Your task to perform on an android device: View the shopping cart on ebay.com. Search for asus zenbook on ebay.com, select the first entry, and add it to the cart. Image 0: 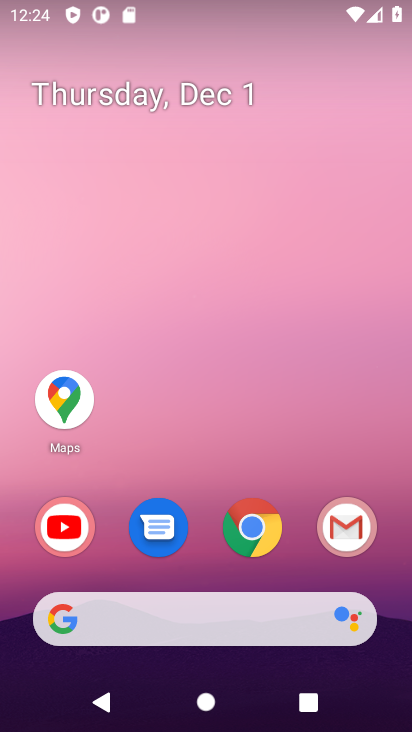
Step 0: click (250, 533)
Your task to perform on an android device: View the shopping cart on ebay.com. Search for asus zenbook on ebay.com, select the first entry, and add it to the cart. Image 1: 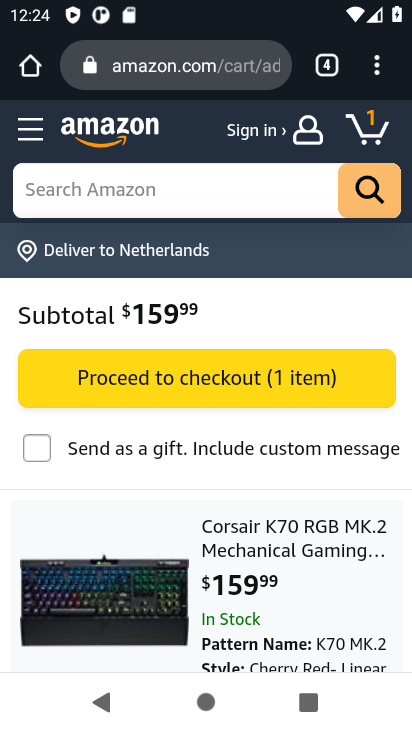
Step 1: click (143, 57)
Your task to perform on an android device: View the shopping cart on ebay.com. Search for asus zenbook on ebay.com, select the first entry, and add it to the cart. Image 2: 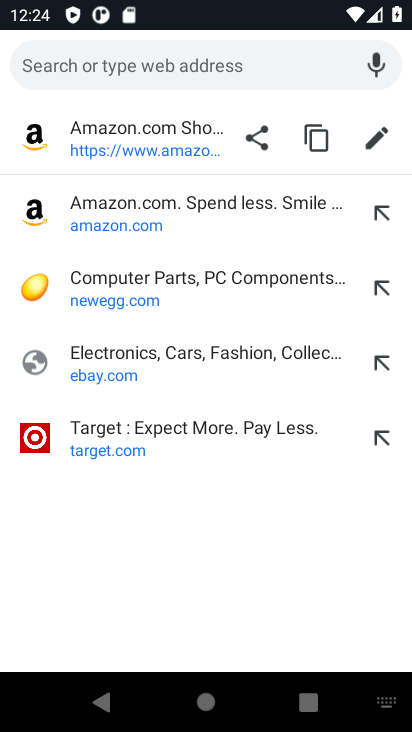
Step 2: click (80, 361)
Your task to perform on an android device: View the shopping cart on ebay.com. Search for asus zenbook on ebay.com, select the first entry, and add it to the cart. Image 3: 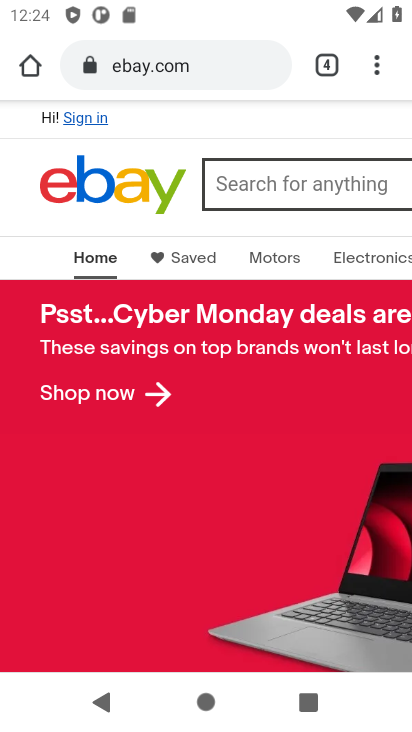
Step 3: drag from (330, 224) to (0, 192)
Your task to perform on an android device: View the shopping cart on ebay.com. Search for asus zenbook on ebay.com, select the first entry, and add it to the cart. Image 4: 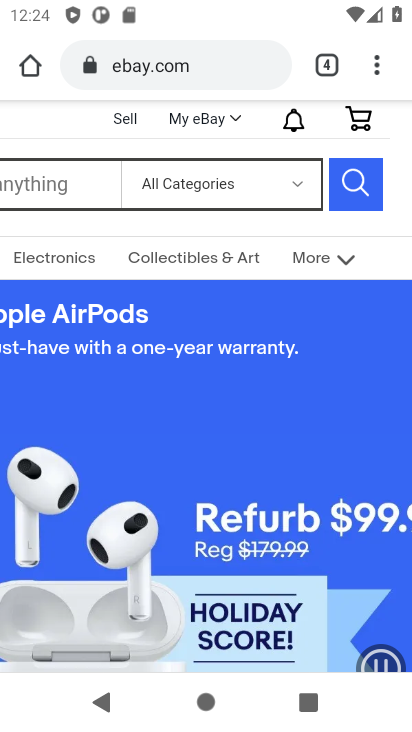
Step 4: click (369, 117)
Your task to perform on an android device: View the shopping cart on ebay.com. Search for asus zenbook on ebay.com, select the first entry, and add it to the cart. Image 5: 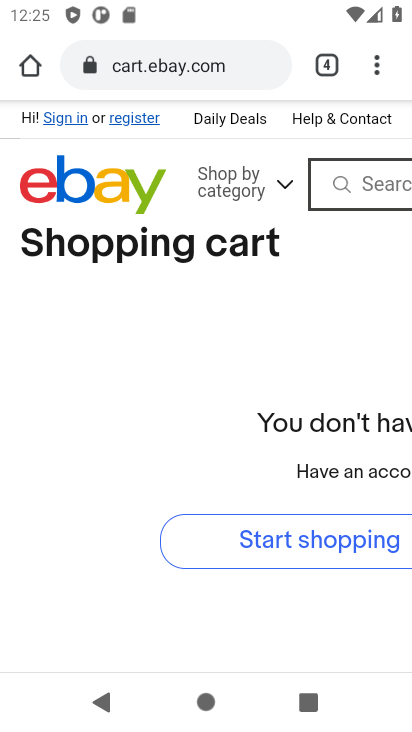
Step 5: click (391, 196)
Your task to perform on an android device: View the shopping cart on ebay.com. Search for asus zenbook on ebay.com, select the first entry, and add it to the cart. Image 6: 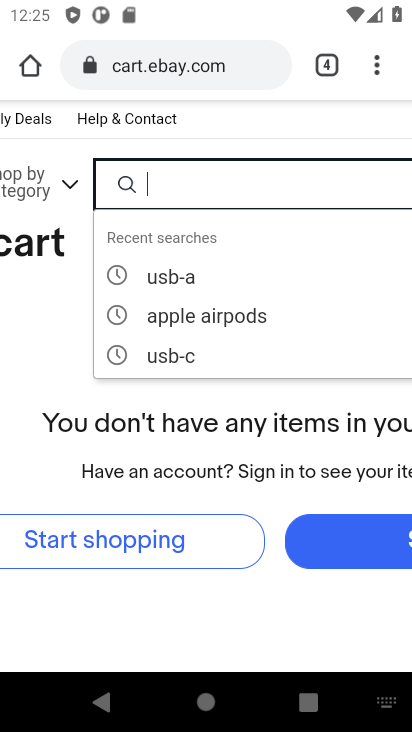
Step 6: type "asus zenbook "
Your task to perform on an android device: View the shopping cart on ebay.com. Search for asus zenbook on ebay.com, select the first entry, and add it to the cart. Image 7: 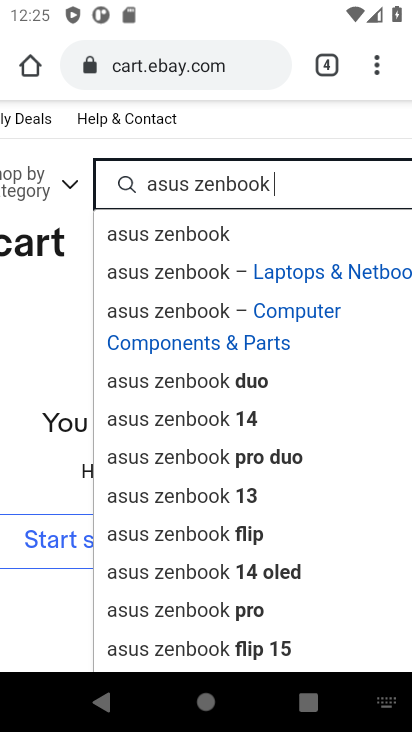
Step 7: click (170, 234)
Your task to perform on an android device: View the shopping cart on ebay.com. Search for asus zenbook on ebay.com, select the first entry, and add it to the cart. Image 8: 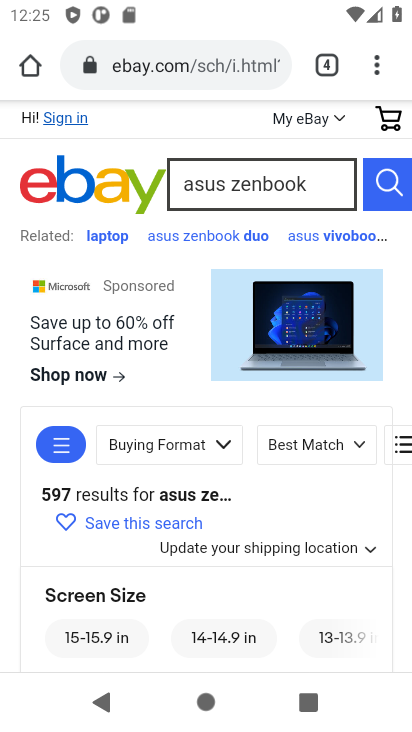
Step 8: drag from (222, 499) to (221, 250)
Your task to perform on an android device: View the shopping cart on ebay.com. Search for asus zenbook on ebay.com, select the first entry, and add it to the cart. Image 9: 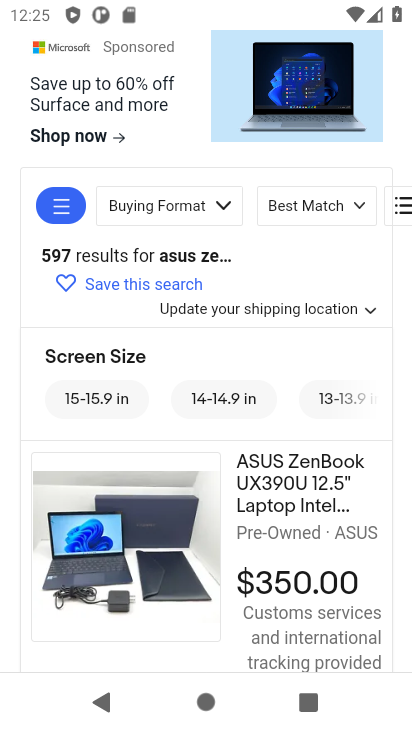
Step 9: drag from (209, 367) to (193, 197)
Your task to perform on an android device: View the shopping cart on ebay.com. Search for asus zenbook on ebay.com, select the first entry, and add it to the cart. Image 10: 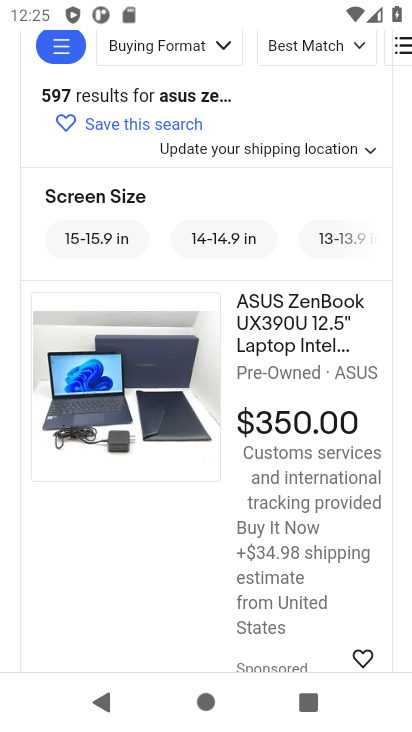
Step 10: click (250, 324)
Your task to perform on an android device: View the shopping cart on ebay.com. Search for asus zenbook on ebay.com, select the first entry, and add it to the cart. Image 11: 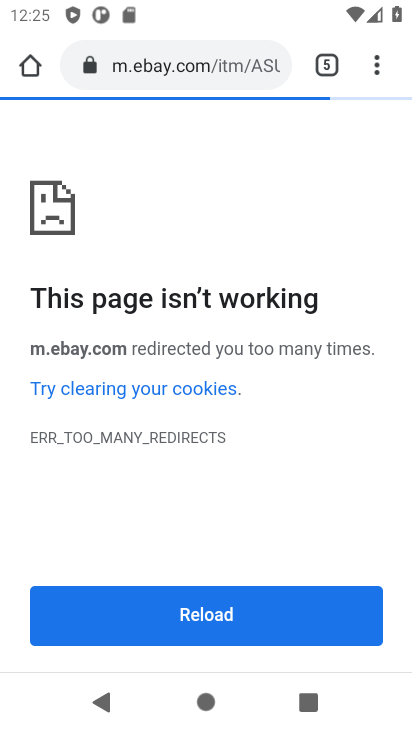
Step 11: task complete